Your task to perform on an android device: turn off translation in the chrome app Image 0: 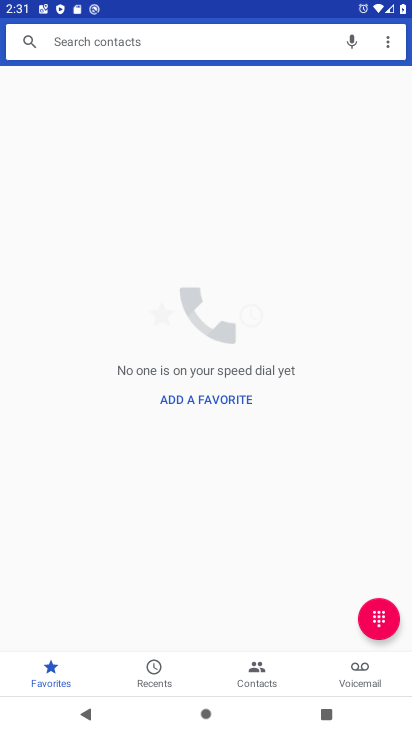
Step 0: press home button
Your task to perform on an android device: turn off translation in the chrome app Image 1: 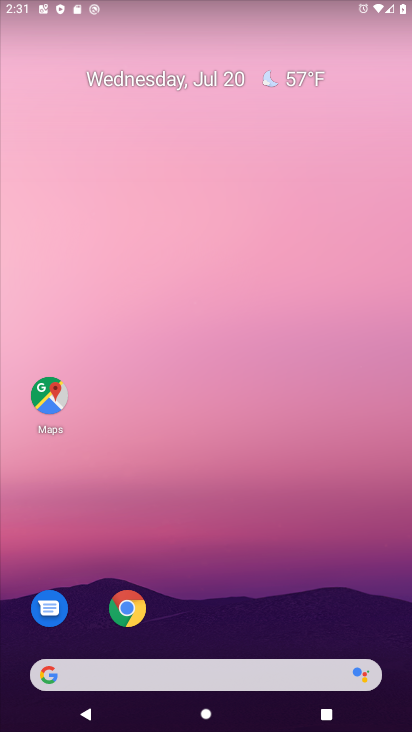
Step 1: click (123, 601)
Your task to perform on an android device: turn off translation in the chrome app Image 2: 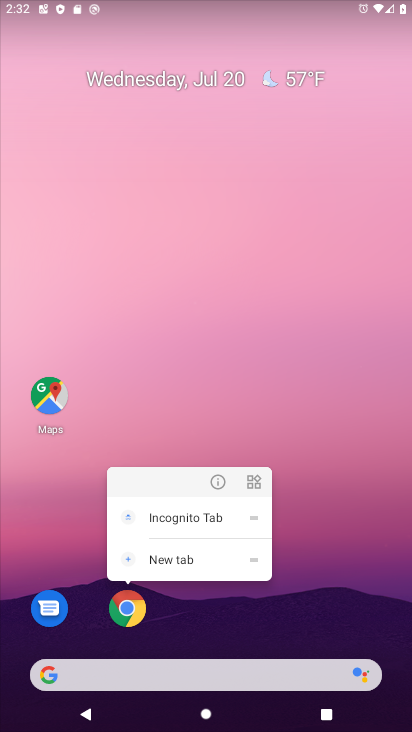
Step 2: click (124, 598)
Your task to perform on an android device: turn off translation in the chrome app Image 3: 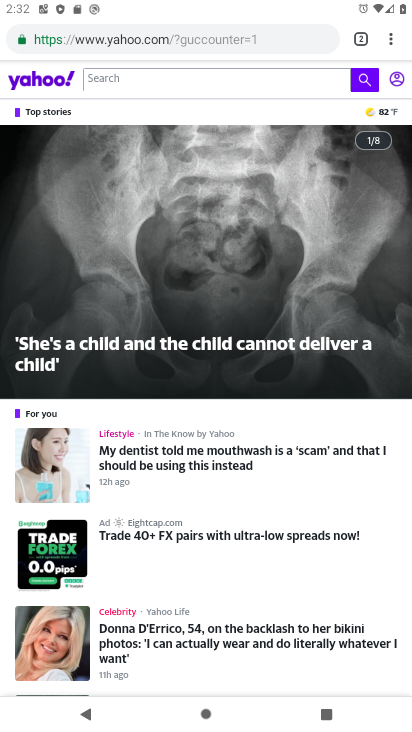
Step 3: click (392, 34)
Your task to perform on an android device: turn off translation in the chrome app Image 4: 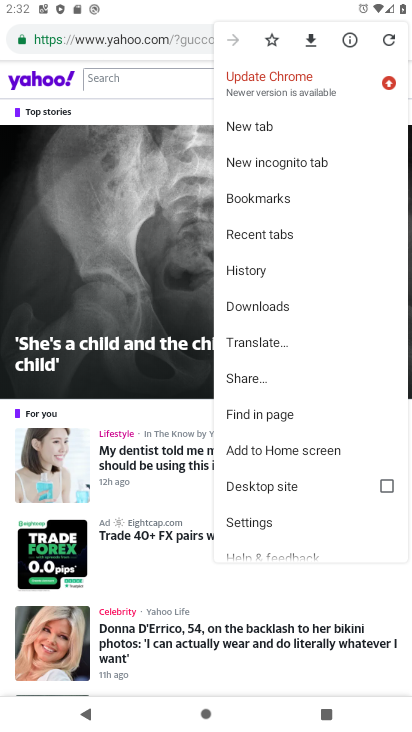
Step 4: click (269, 520)
Your task to perform on an android device: turn off translation in the chrome app Image 5: 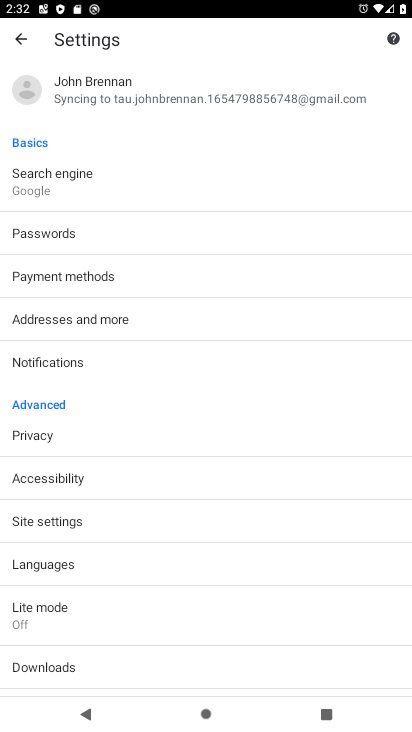
Step 5: click (85, 568)
Your task to perform on an android device: turn off translation in the chrome app Image 6: 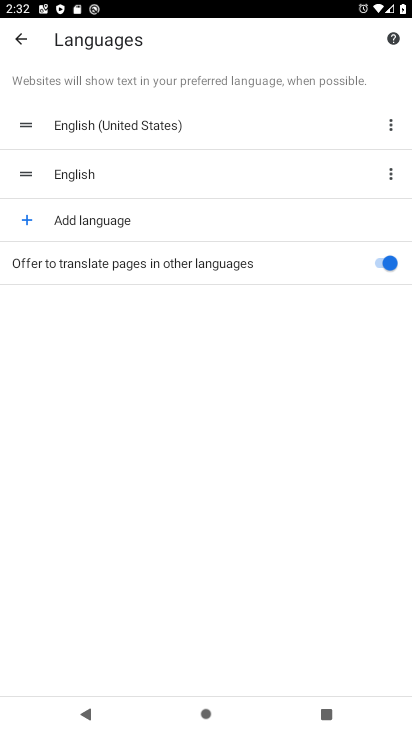
Step 6: click (383, 262)
Your task to perform on an android device: turn off translation in the chrome app Image 7: 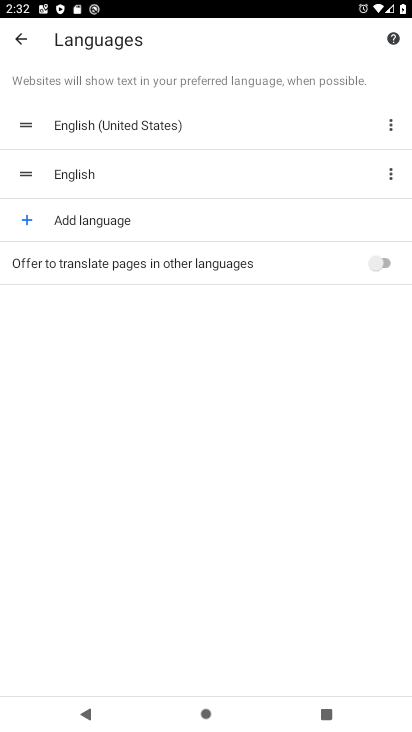
Step 7: task complete